Your task to perform on an android device: Open Reddit.com Image 0: 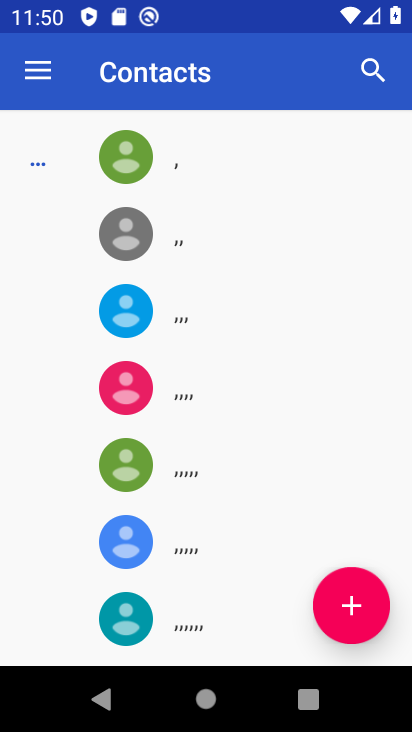
Step 0: press home button
Your task to perform on an android device: Open Reddit.com Image 1: 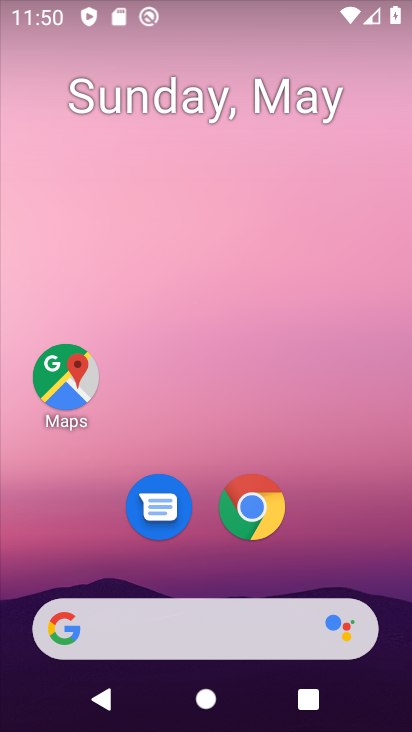
Step 1: click (255, 509)
Your task to perform on an android device: Open Reddit.com Image 2: 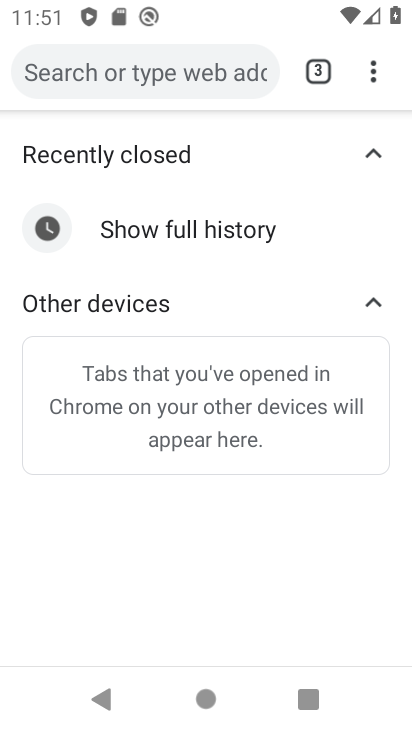
Step 2: click (371, 77)
Your task to perform on an android device: Open Reddit.com Image 3: 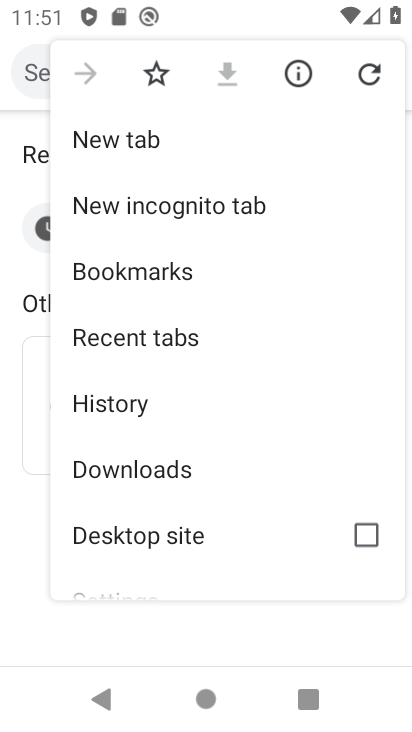
Step 3: click (148, 140)
Your task to perform on an android device: Open Reddit.com Image 4: 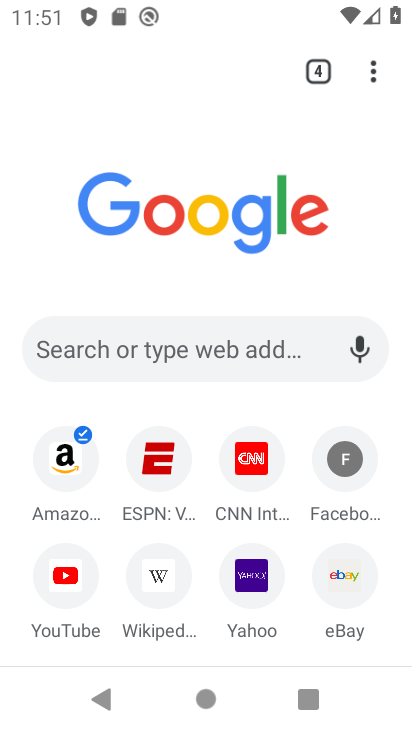
Step 4: click (188, 349)
Your task to perform on an android device: Open Reddit.com Image 5: 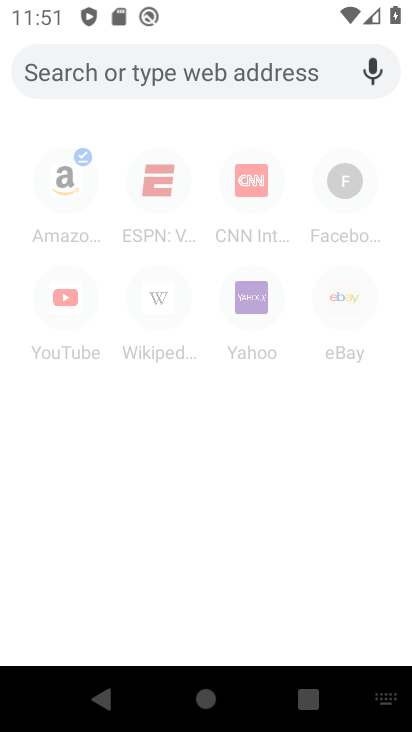
Step 5: type "Reddit.com"
Your task to perform on an android device: Open Reddit.com Image 6: 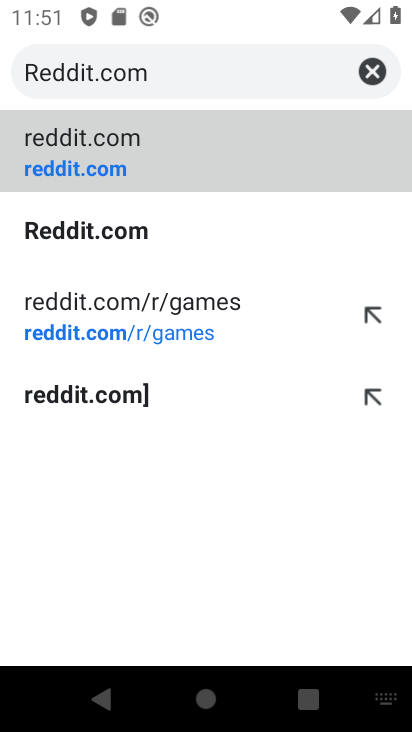
Step 6: click (84, 155)
Your task to perform on an android device: Open Reddit.com Image 7: 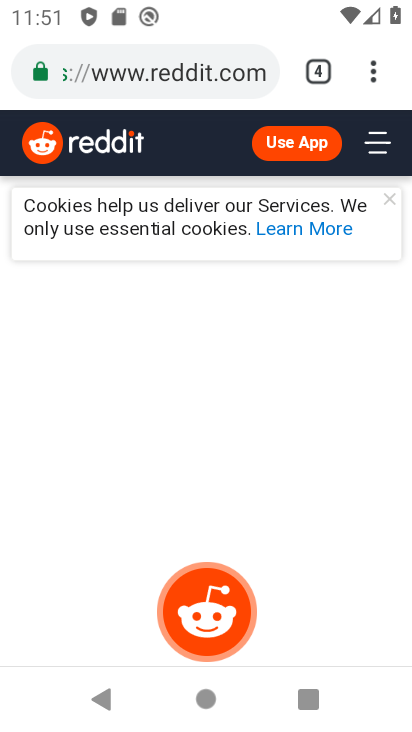
Step 7: task complete